Your task to perform on an android device: Open Google Maps Image 0: 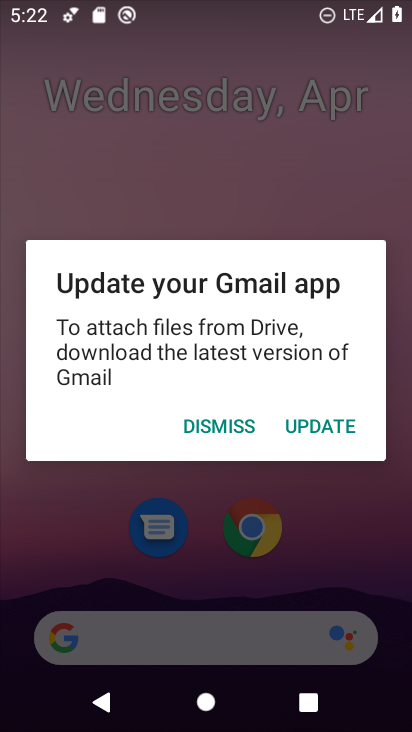
Step 0: press home button
Your task to perform on an android device: Open Google Maps Image 1: 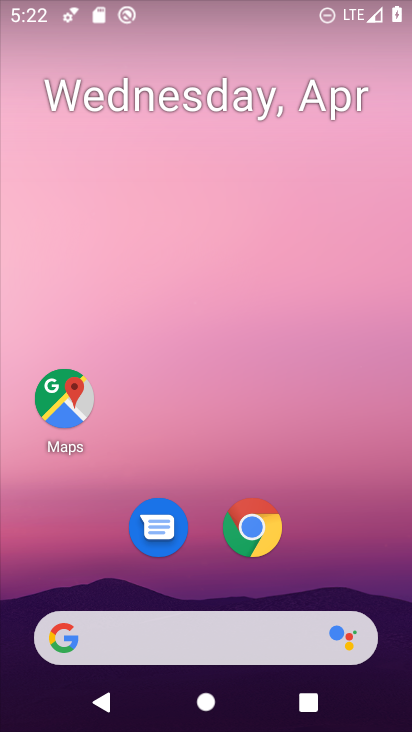
Step 1: click (61, 394)
Your task to perform on an android device: Open Google Maps Image 2: 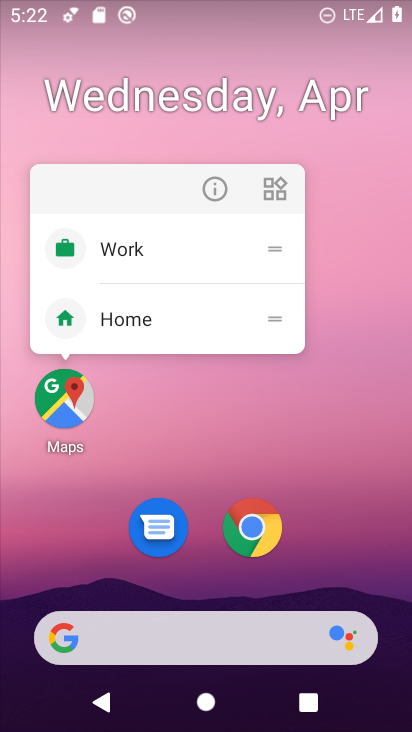
Step 2: click (61, 394)
Your task to perform on an android device: Open Google Maps Image 3: 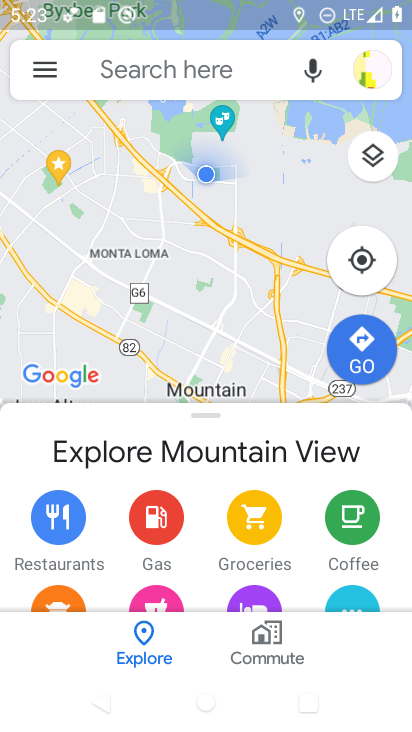
Step 3: task complete